Your task to perform on an android device: Show the shopping cart on walmart. Image 0: 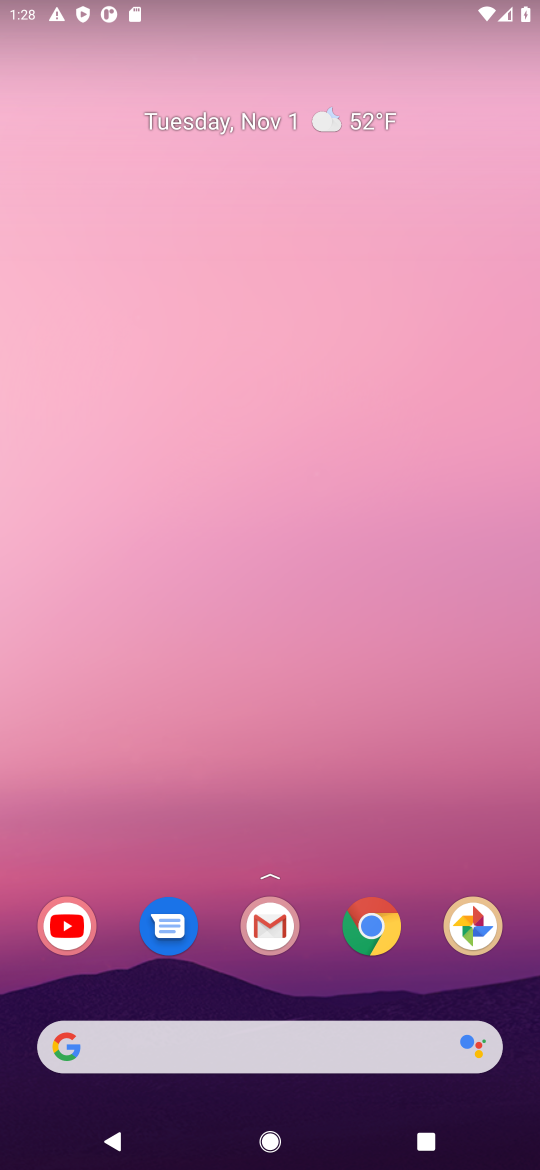
Step 0: click (377, 937)
Your task to perform on an android device: Show the shopping cart on walmart. Image 1: 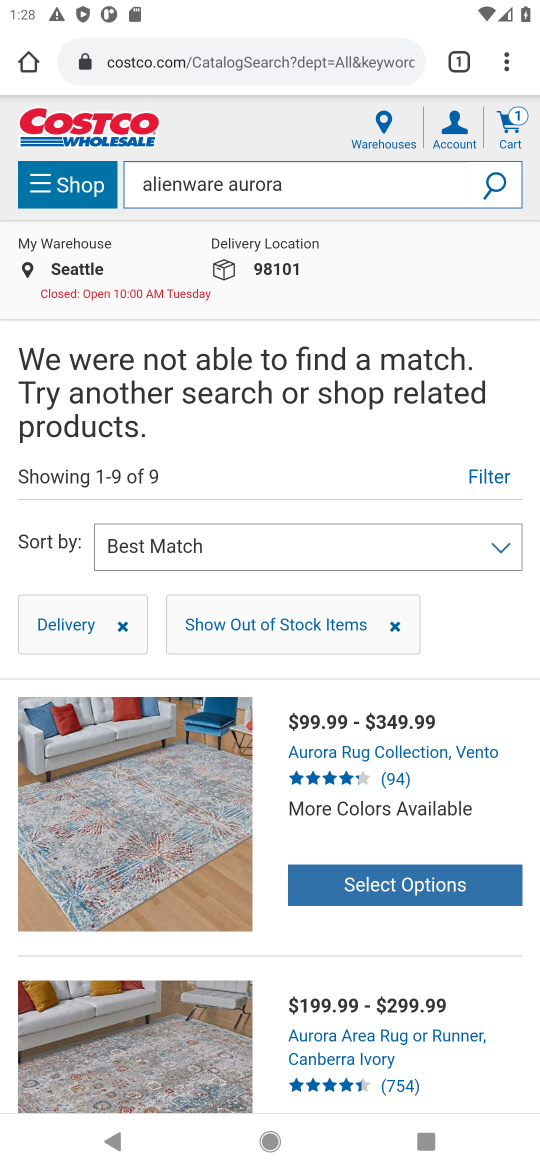
Step 1: click (252, 69)
Your task to perform on an android device: Show the shopping cart on walmart. Image 2: 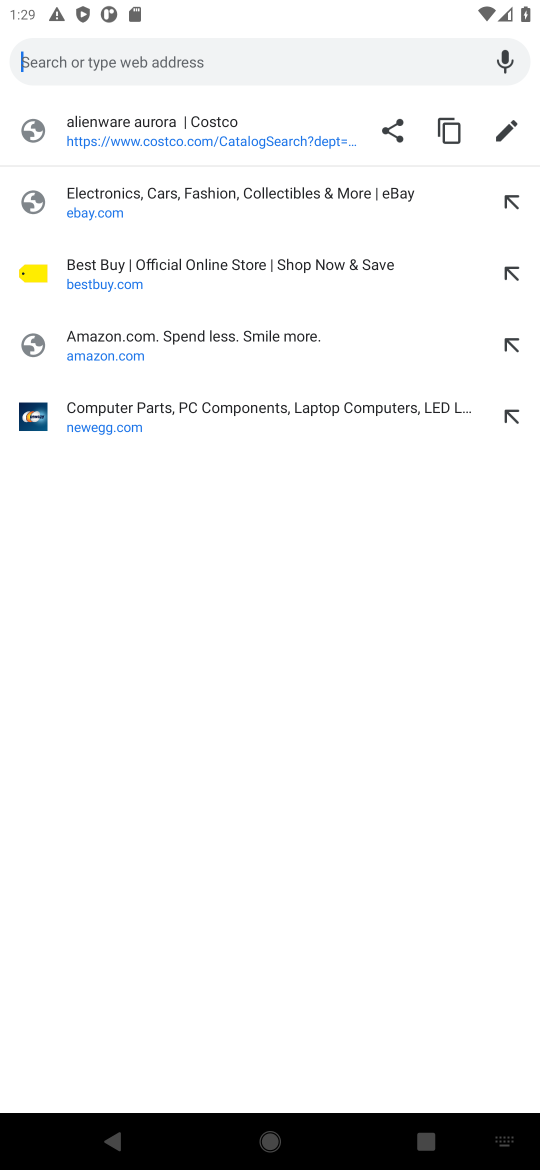
Step 2: type "walmart"
Your task to perform on an android device: Show the shopping cart on walmart. Image 3: 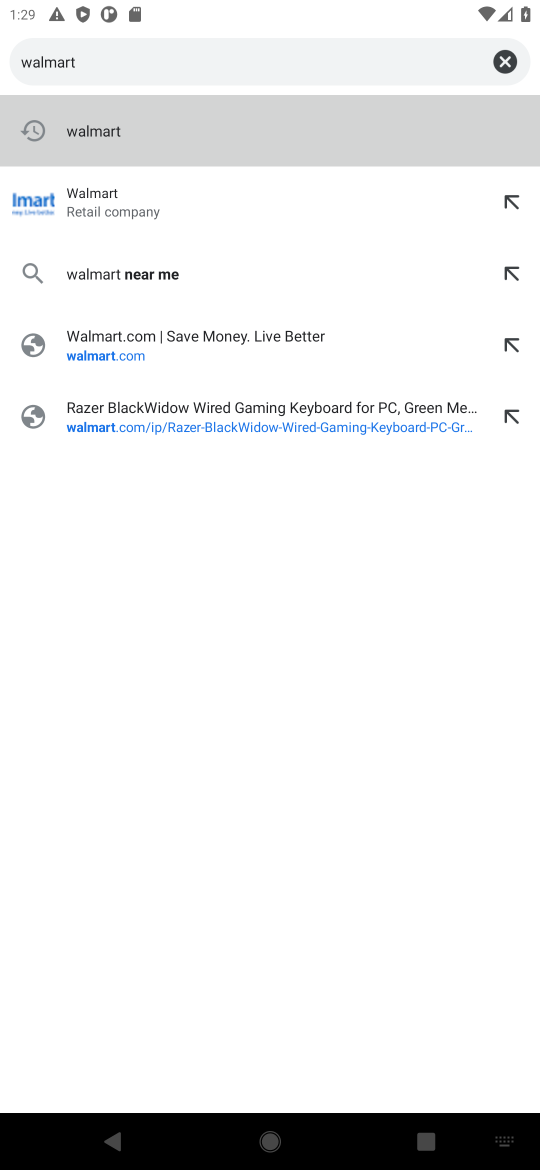
Step 3: click (156, 207)
Your task to perform on an android device: Show the shopping cart on walmart. Image 4: 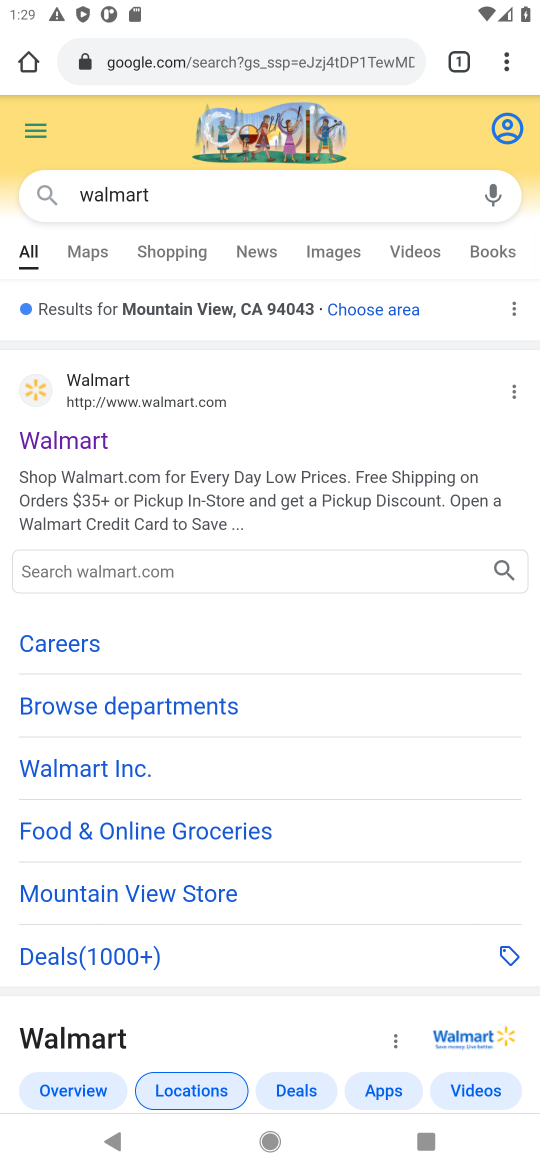
Step 4: click (63, 442)
Your task to perform on an android device: Show the shopping cart on walmart. Image 5: 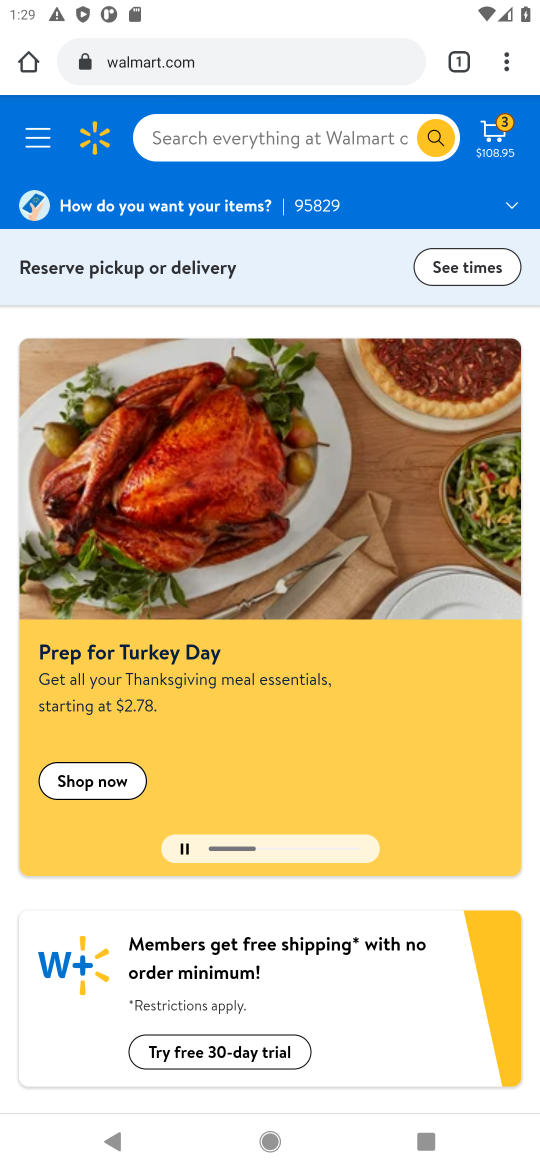
Step 5: click (496, 132)
Your task to perform on an android device: Show the shopping cart on walmart. Image 6: 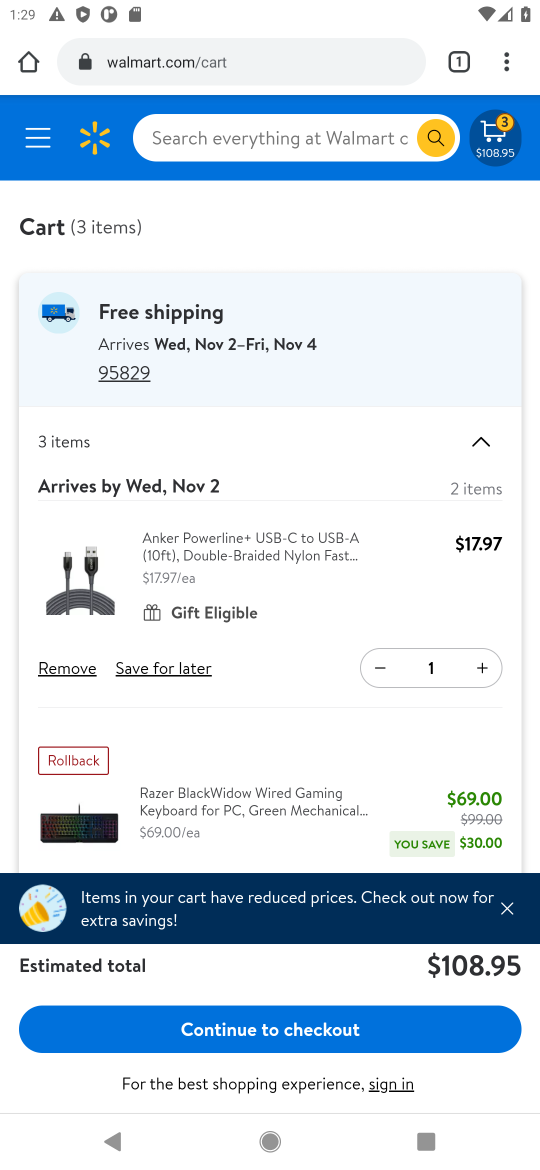
Step 6: task complete